Your task to perform on an android device: find snoozed emails in the gmail app Image 0: 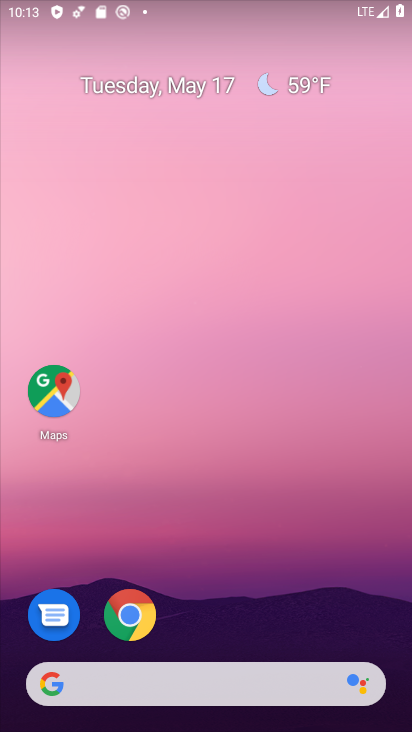
Step 0: drag from (219, 696) to (319, 232)
Your task to perform on an android device: find snoozed emails in the gmail app Image 1: 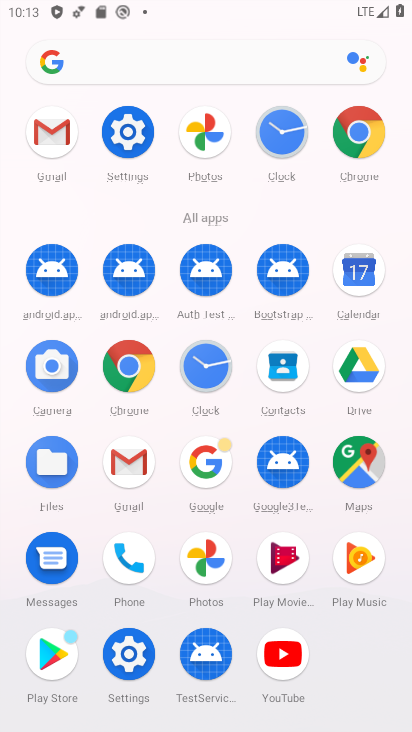
Step 1: click (43, 133)
Your task to perform on an android device: find snoozed emails in the gmail app Image 2: 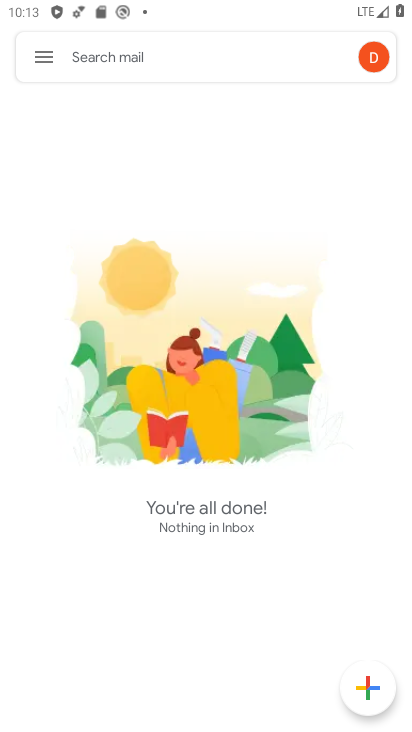
Step 2: click (45, 55)
Your task to perform on an android device: find snoozed emails in the gmail app Image 3: 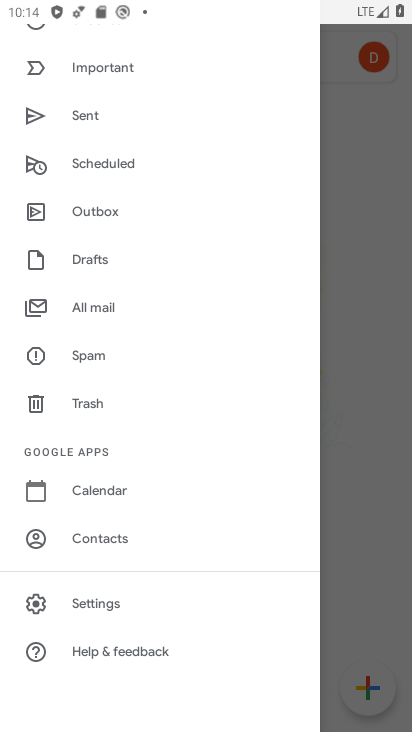
Step 3: drag from (175, 124) to (148, 405)
Your task to perform on an android device: find snoozed emails in the gmail app Image 4: 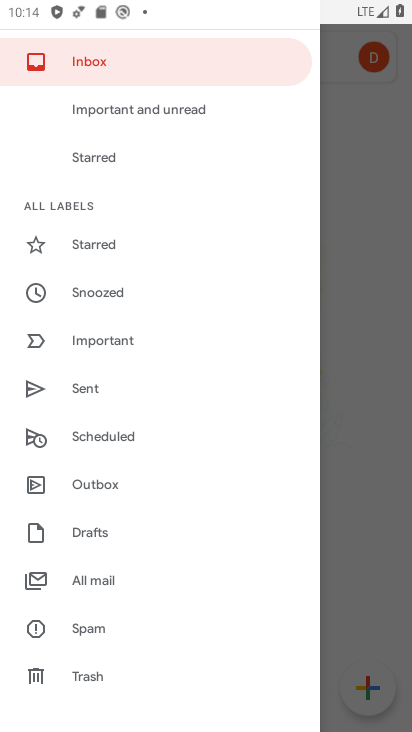
Step 4: click (96, 300)
Your task to perform on an android device: find snoozed emails in the gmail app Image 5: 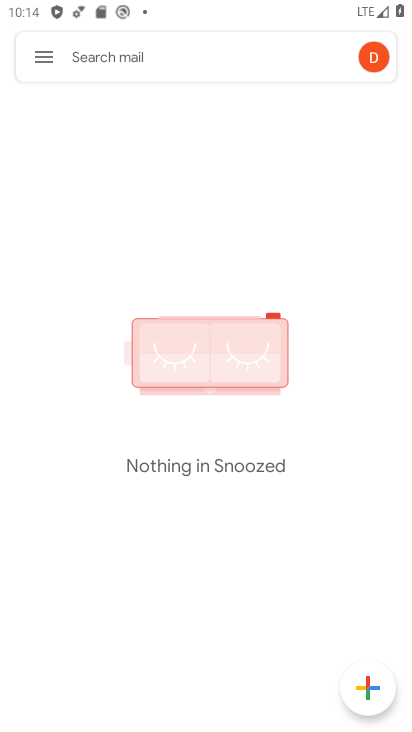
Step 5: task complete